Your task to perform on an android device: toggle translation in the chrome app Image 0: 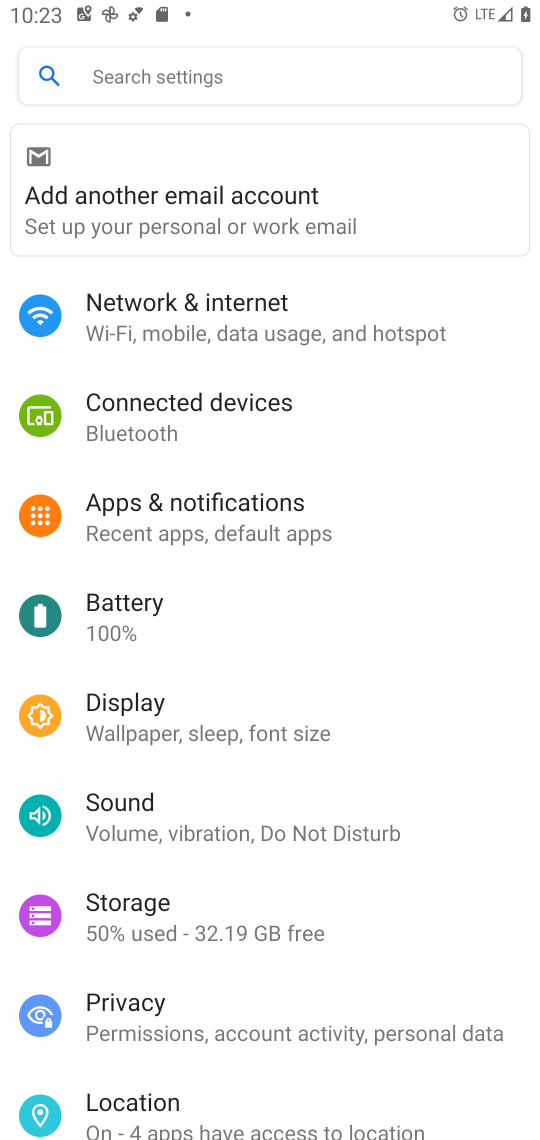
Step 0: press home button
Your task to perform on an android device: toggle translation in the chrome app Image 1: 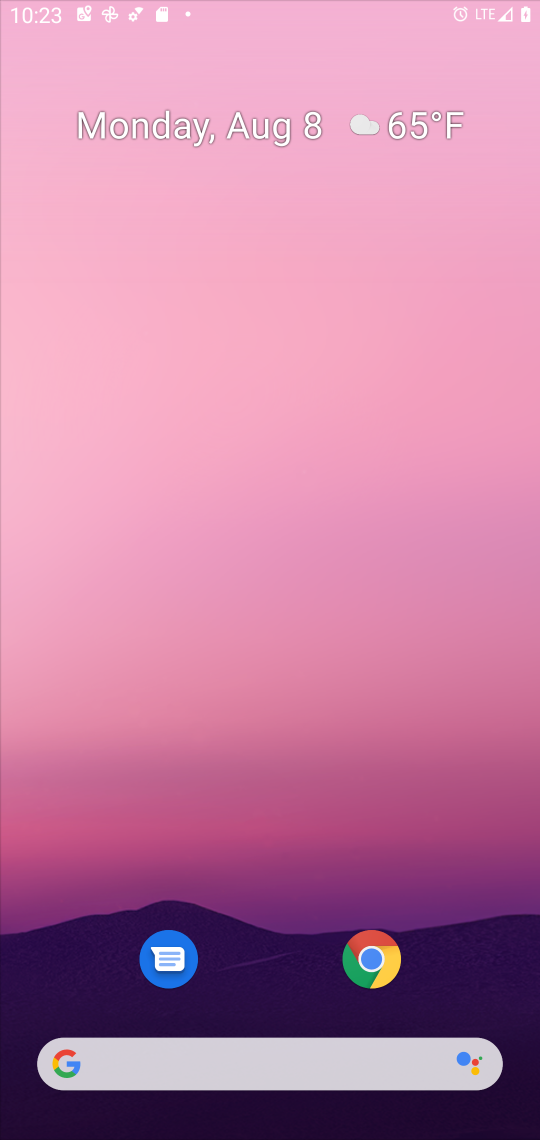
Step 1: drag from (492, 1010) to (250, 13)
Your task to perform on an android device: toggle translation in the chrome app Image 2: 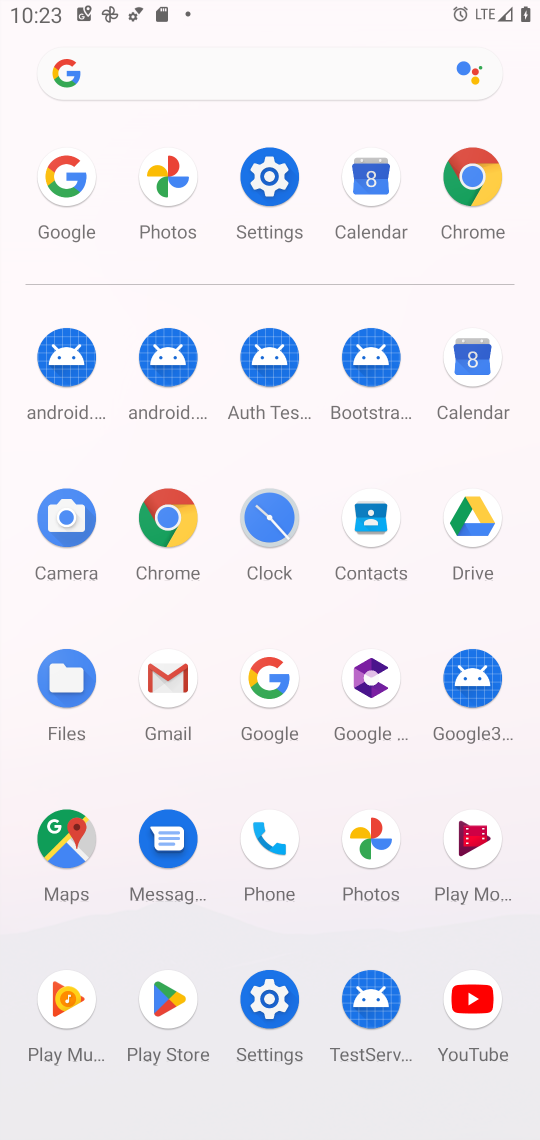
Step 2: click (484, 202)
Your task to perform on an android device: toggle translation in the chrome app Image 3: 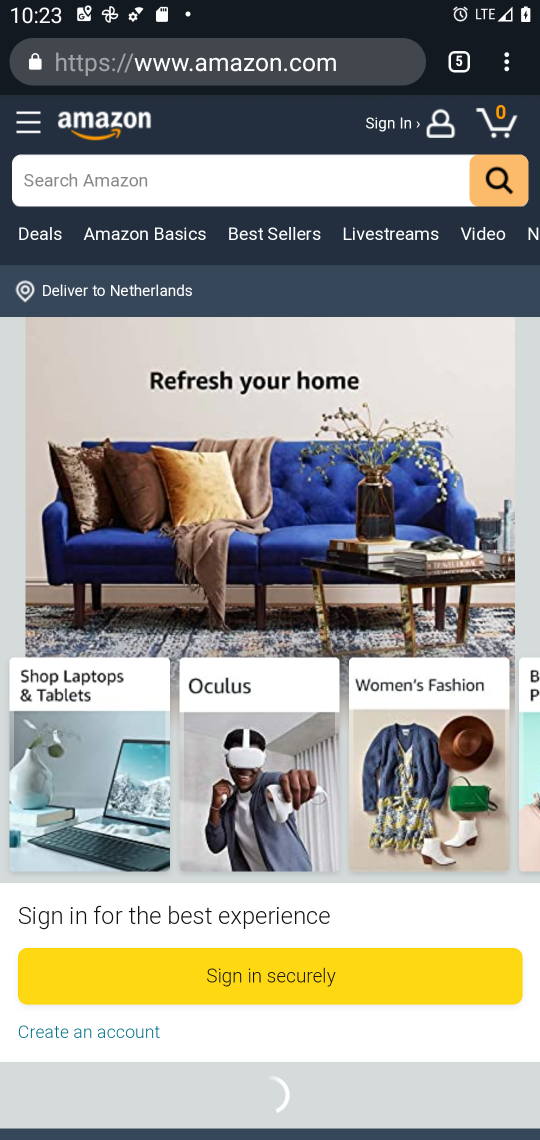
Step 3: click (504, 55)
Your task to perform on an android device: toggle translation in the chrome app Image 4: 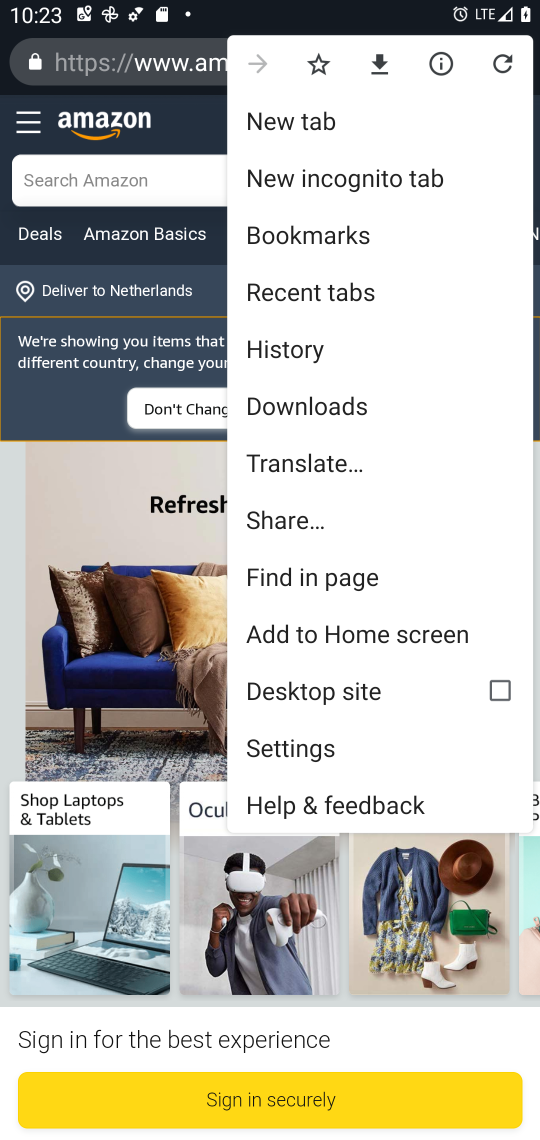
Step 4: click (306, 747)
Your task to perform on an android device: toggle translation in the chrome app Image 5: 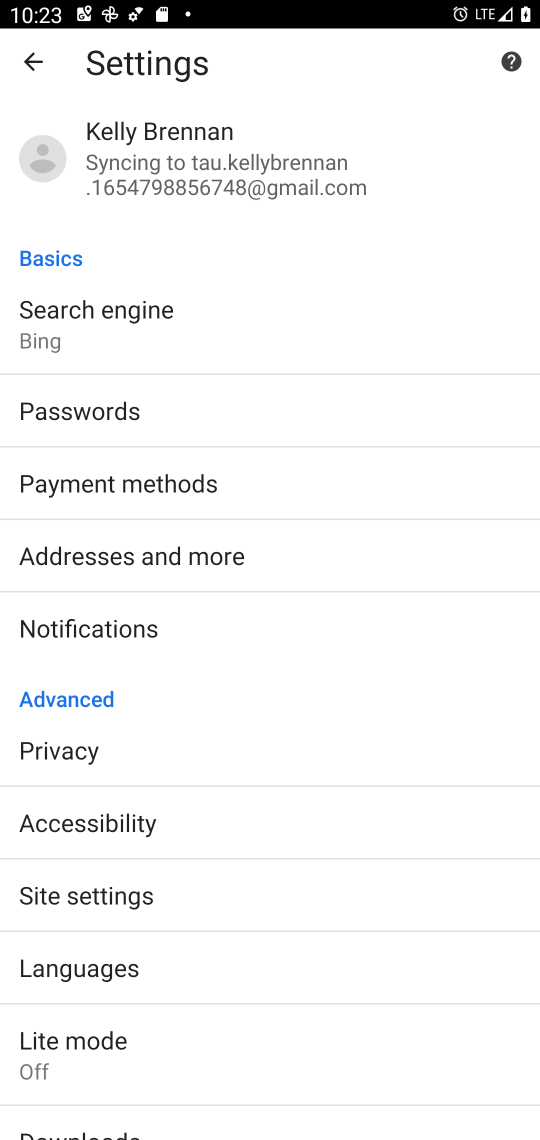
Step 5: click (122, 972)
Your task to perform on an android device: toggle translation in the chrome app Image 6: 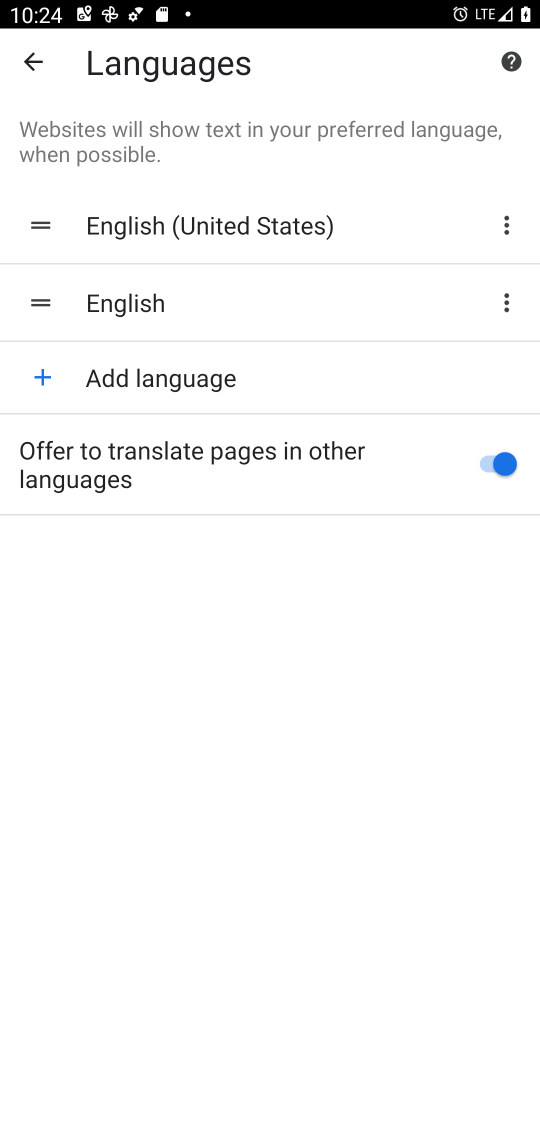
Step 6: click (504, 479)
Your task to perform on an android device: toggle translation in the chrome app Image 7: 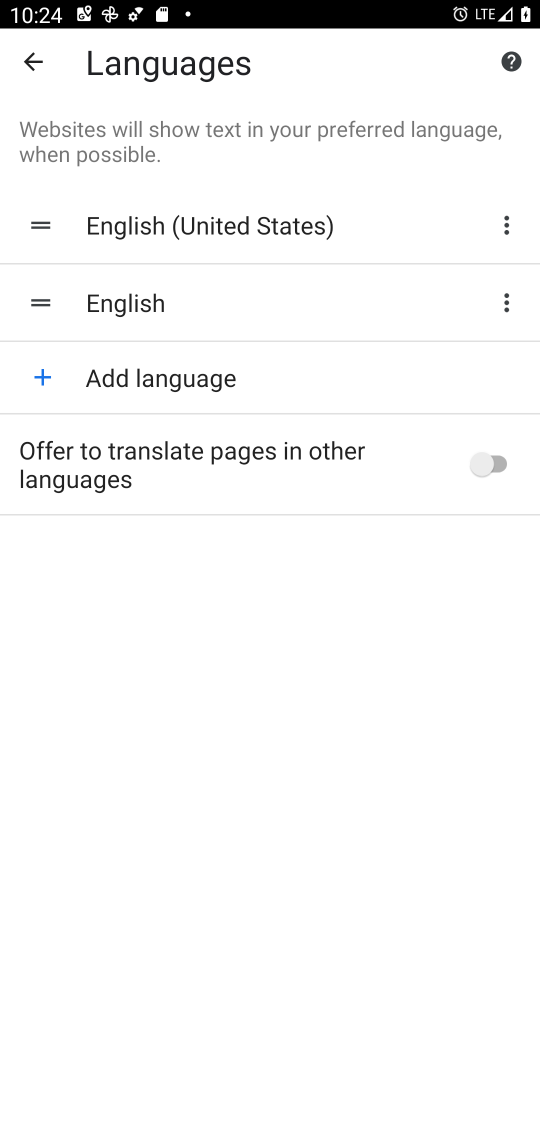
Step 7: task complete